Your task to perform on an android device: View the shopping cart on newegg.com. Search for razer kraken on newegg.com, select the first entry, and add it to the cart. Image 0: 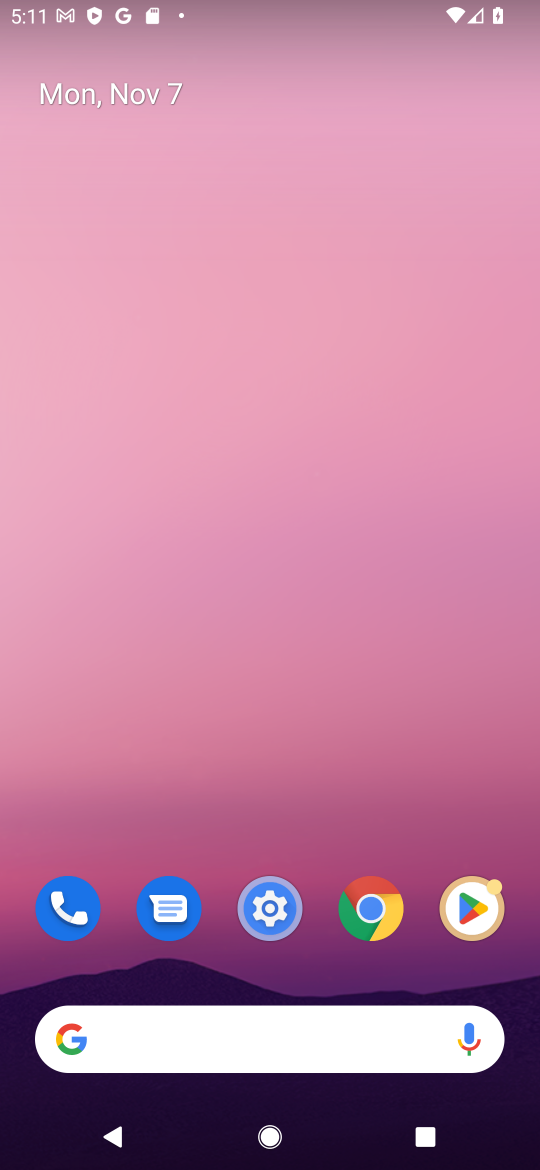
Step 0: click (284, 1030)
Your task to perform on an android device: View the shopping cart on newegg.com. Search for razer kraken on newegg.com, select the first entry, and add it to the cart. Image 1: 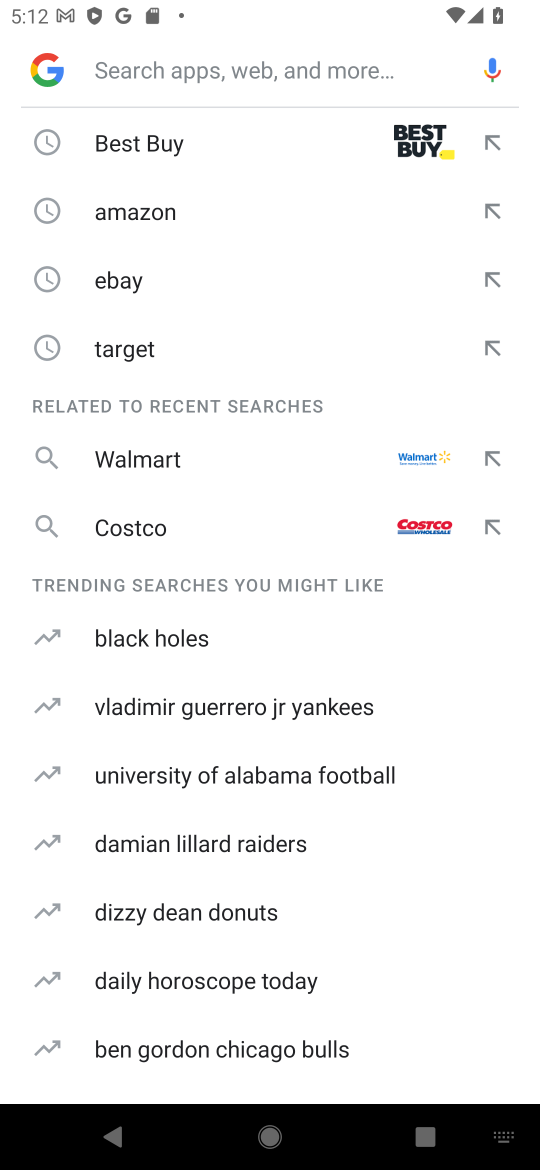
Step 1: type "newegg"
Your task to perform on an android device: View the shopping cart on newegg.com. Search for razer kraken on newegg.com, select the first entry, and add it to the cart. Image 2: 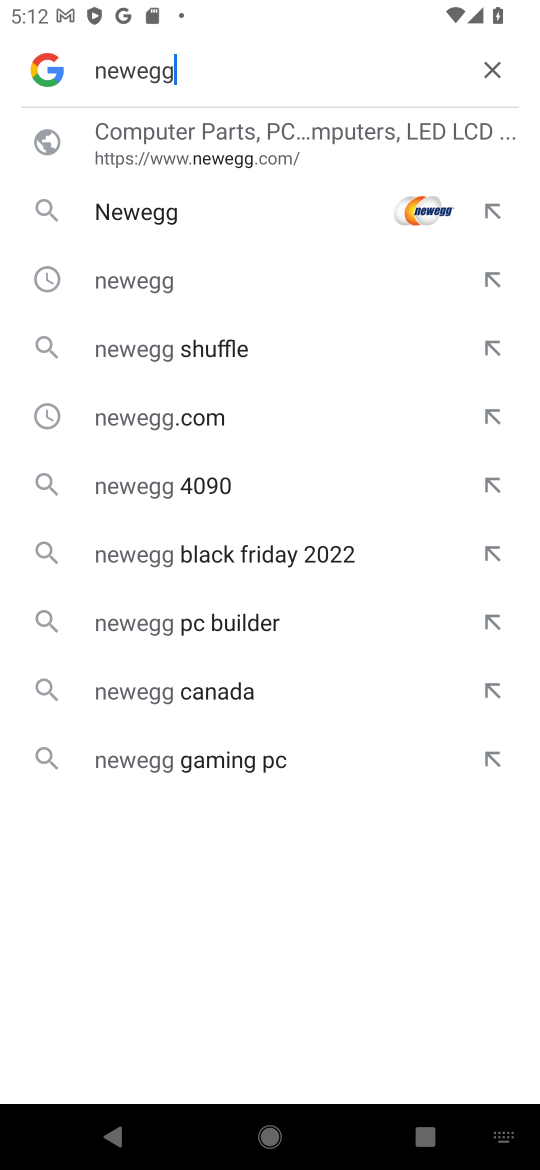
Step 2: click (218, 142)
Your task to perform on an android device: View the shopping cart on newegg.com. Search for razer kraken on newegg.com, select the first entry, and add it to the cart. Image 3: 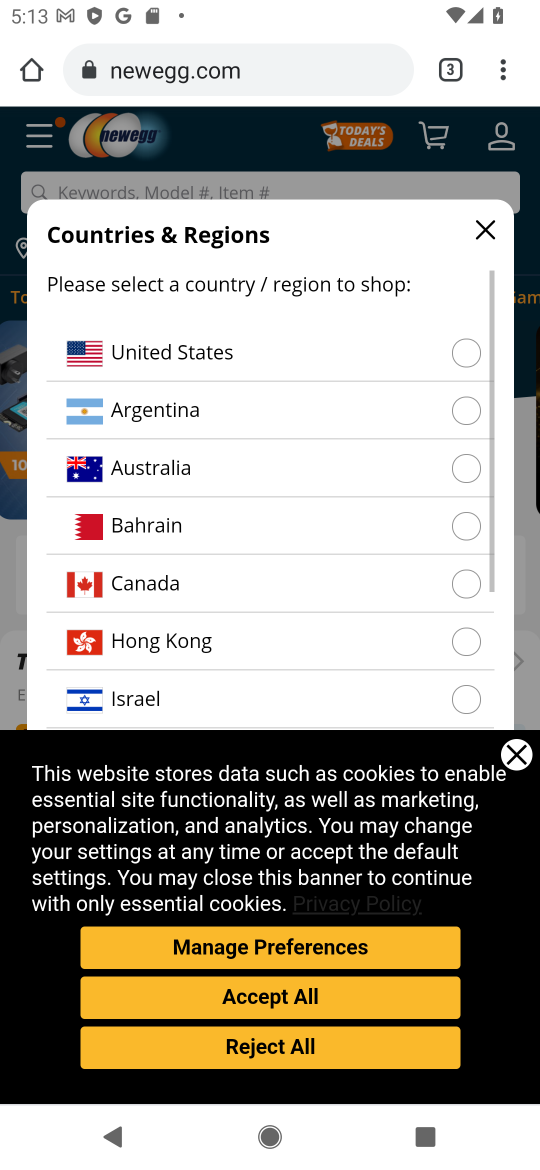
Step 3: click (213, 363)
Your task to perform on an android device: View the shopping cart on newegg.com. Search for razer kraken on newegg.com, select the first entry, and add it to the cart. Image 4: 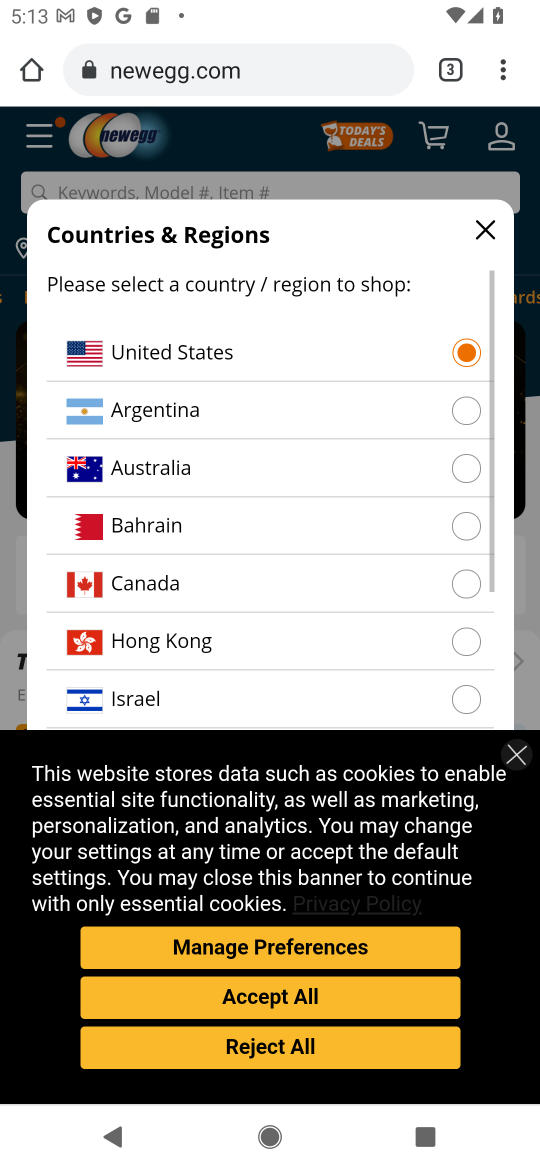
Step 4: click (279, 1009)
Your task to perform on an android device: View the shopping cart on newegg.com. Search for razer kraken on newegg.com, select the first entry, and add it to the cart. Image 5: 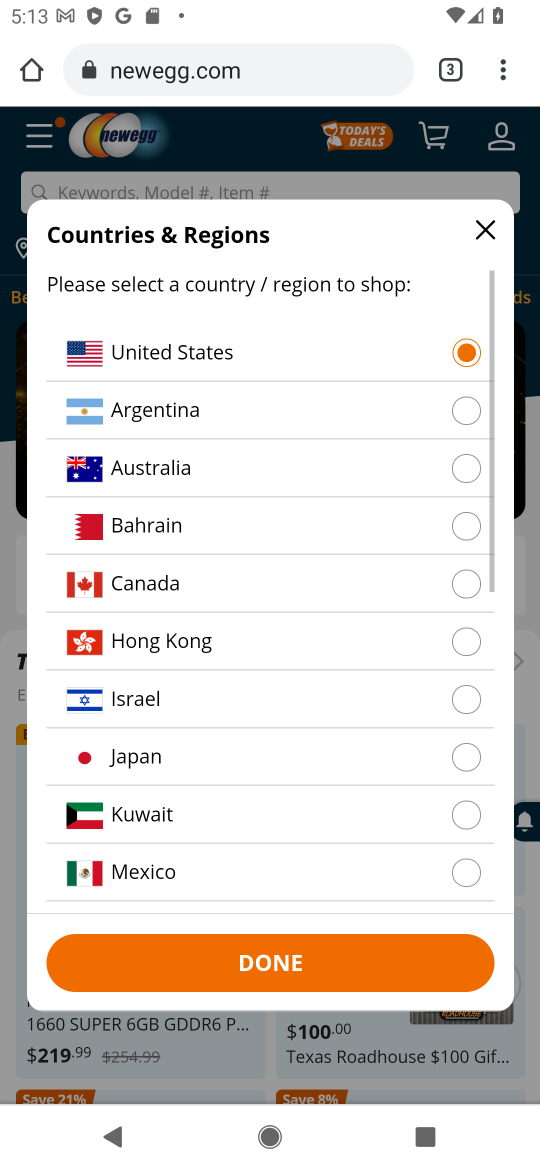
Step 5: task complete